Your task to perform on an android device: Search for razer blade on amazon.com, select the first entry, and add it to the cart. Image 0: 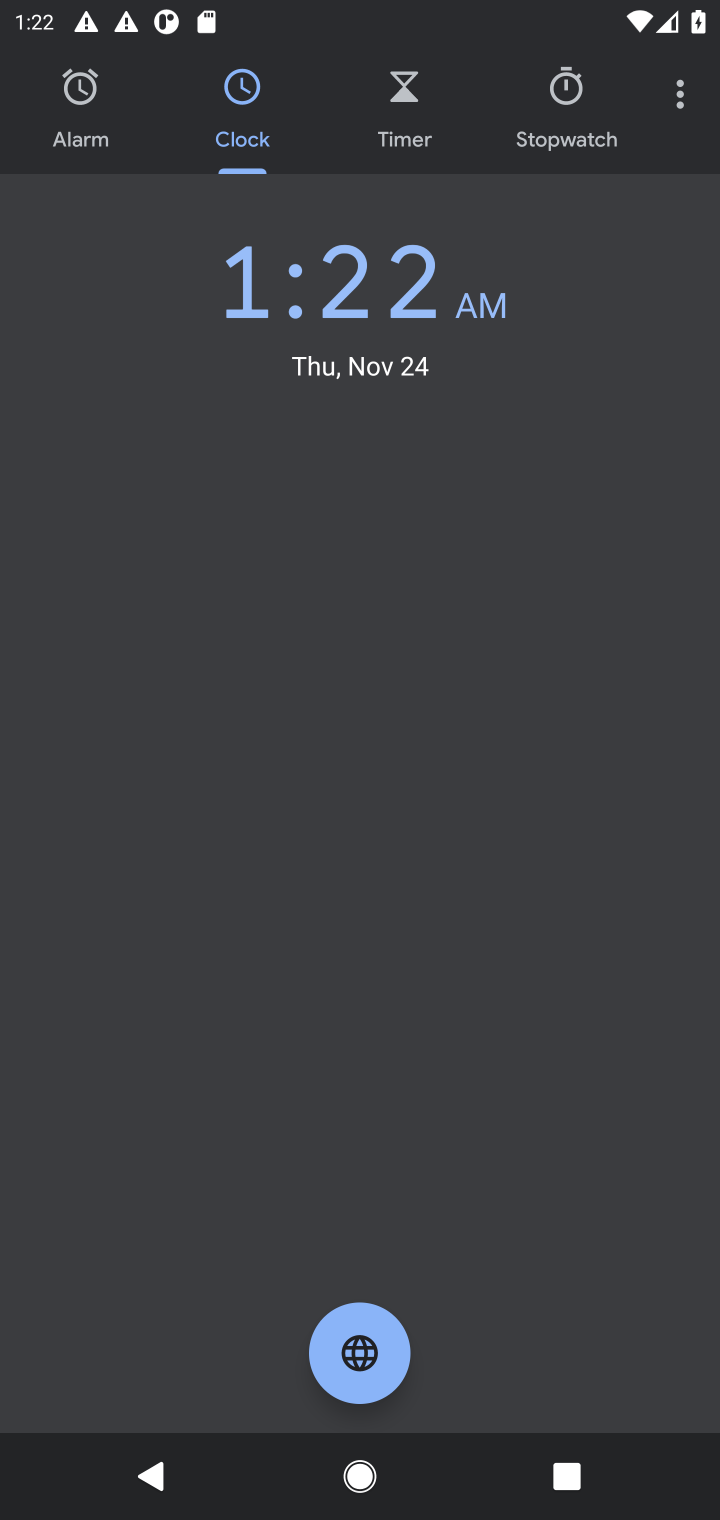
Step 0: press home button
Your task to perform on an android device: Search for razer blade on amazon.com, select the first entry, and add it to the cart. Image 1: 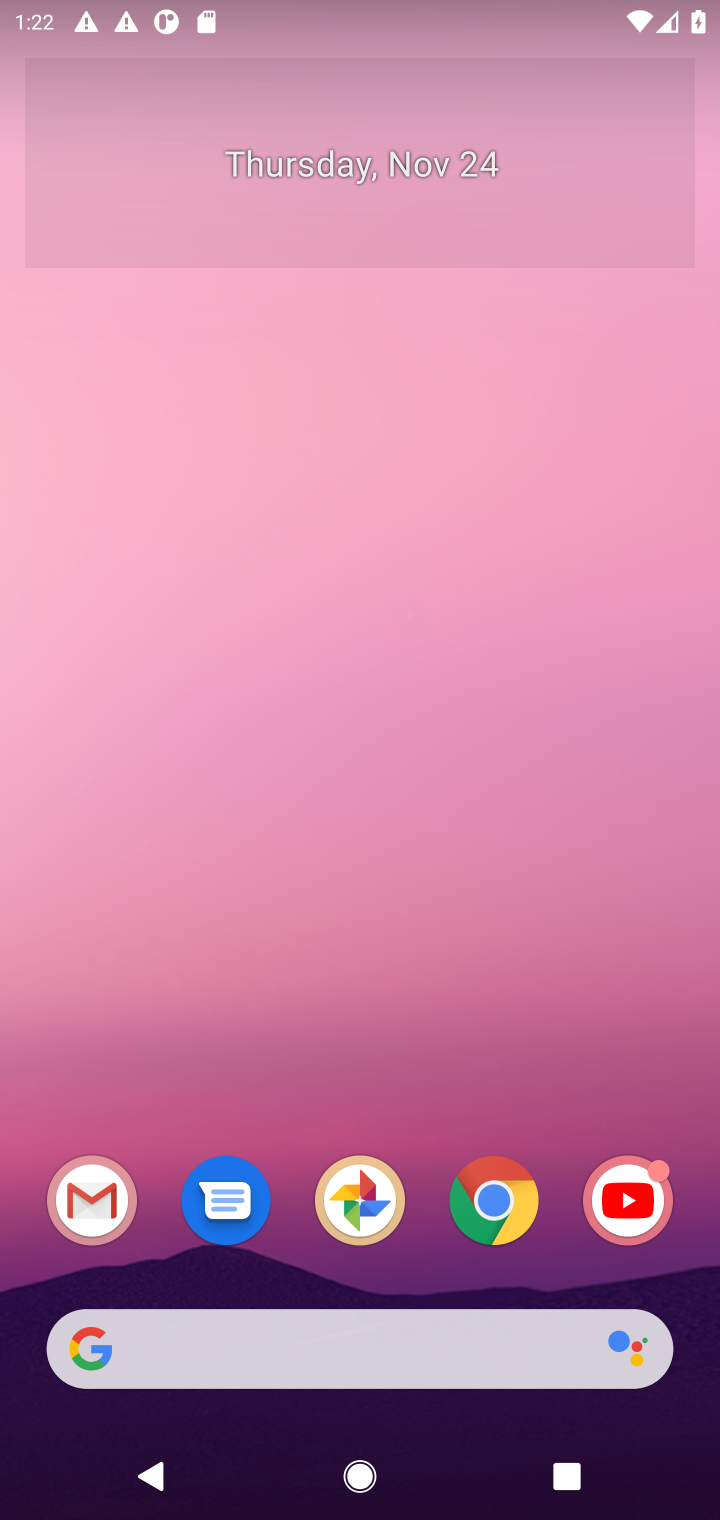
Step 1: click (453, 1326)
Your task to perform on an android device: Search for razer blade on amazon.com, select the first entry, and add it to the cart. Image 2: 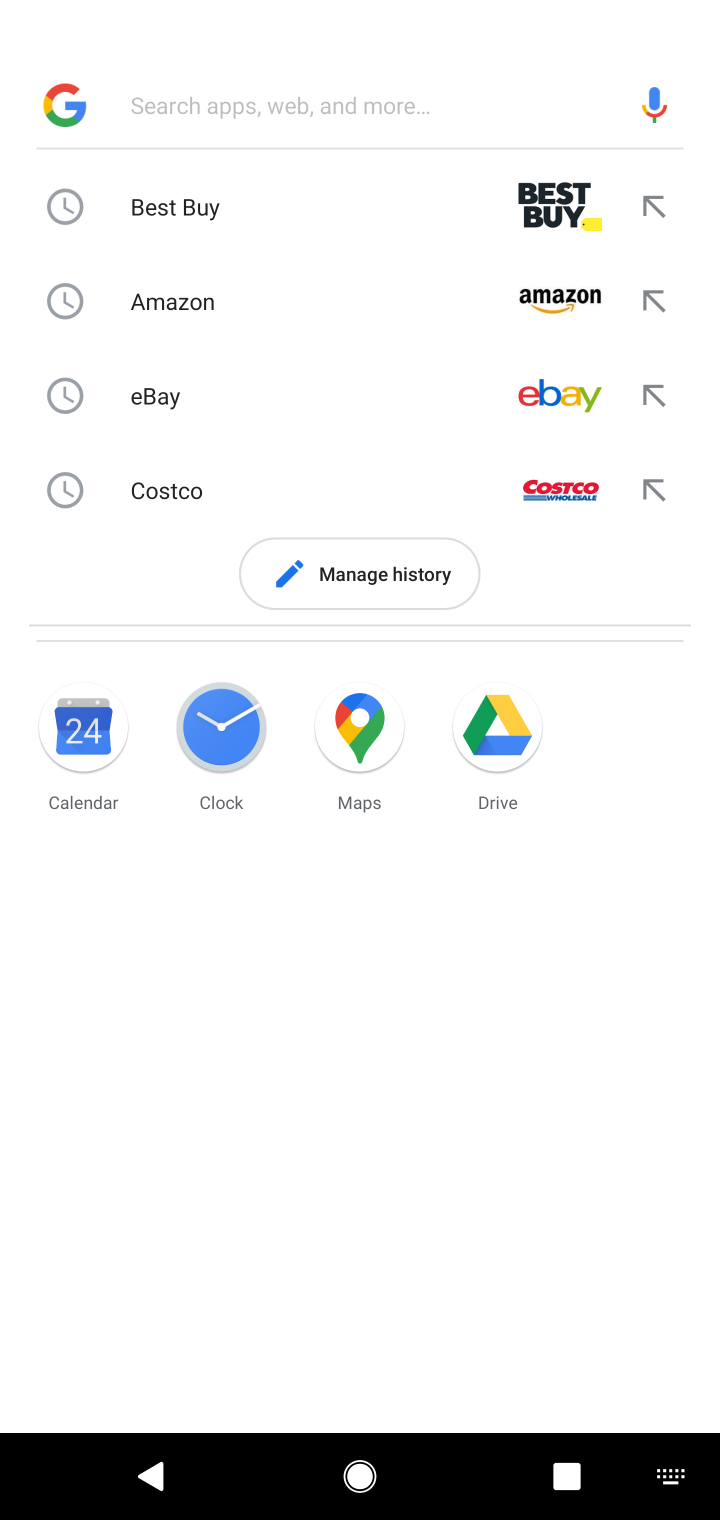
Step 2: click (385, 294)
Your task to perform on an android device: Search for razer blade on amazon.com, select the first entry, and add it to the cart. Image 3: 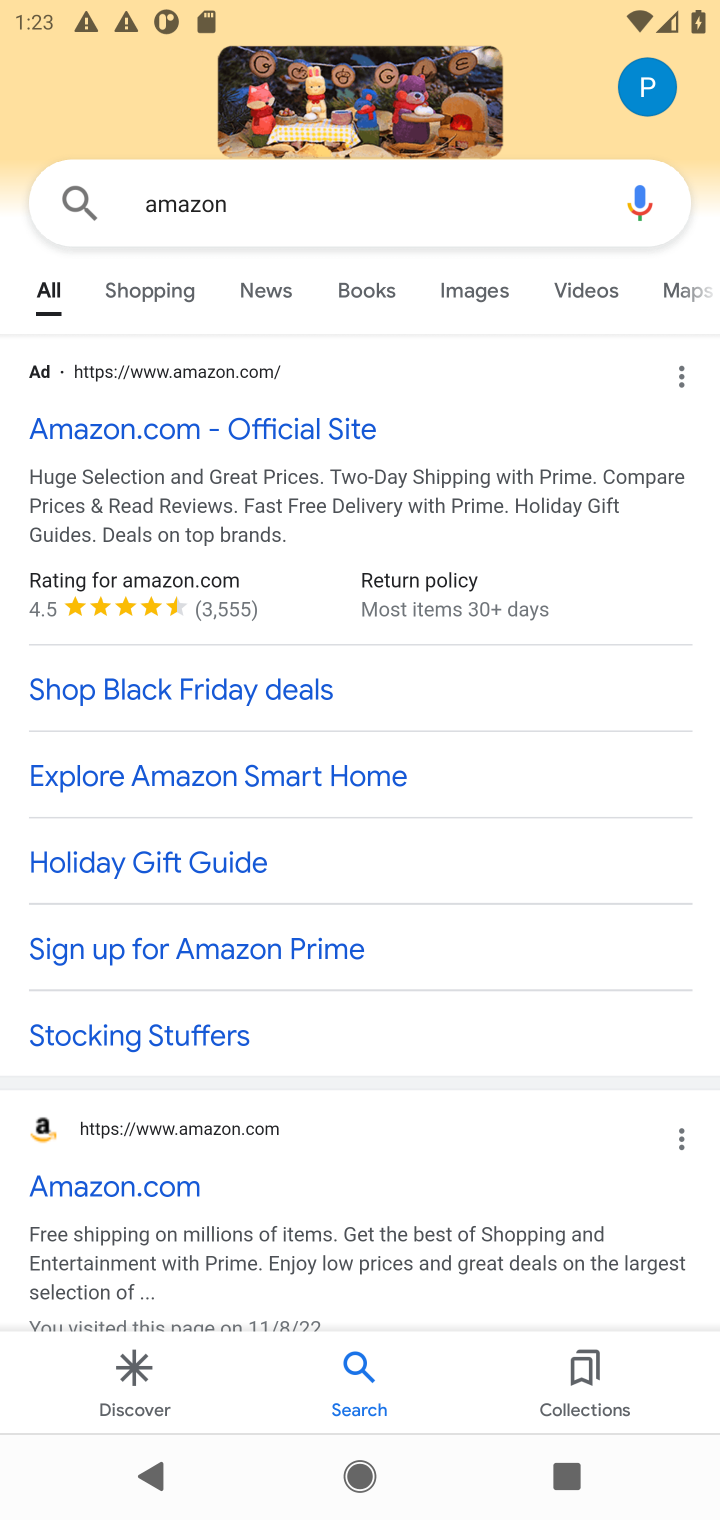
Step 3: click (348, 412)
Your task to perform on an android device: Search for razer blade on amazon.com, select the first entry, and add it to the cart. Image 4: 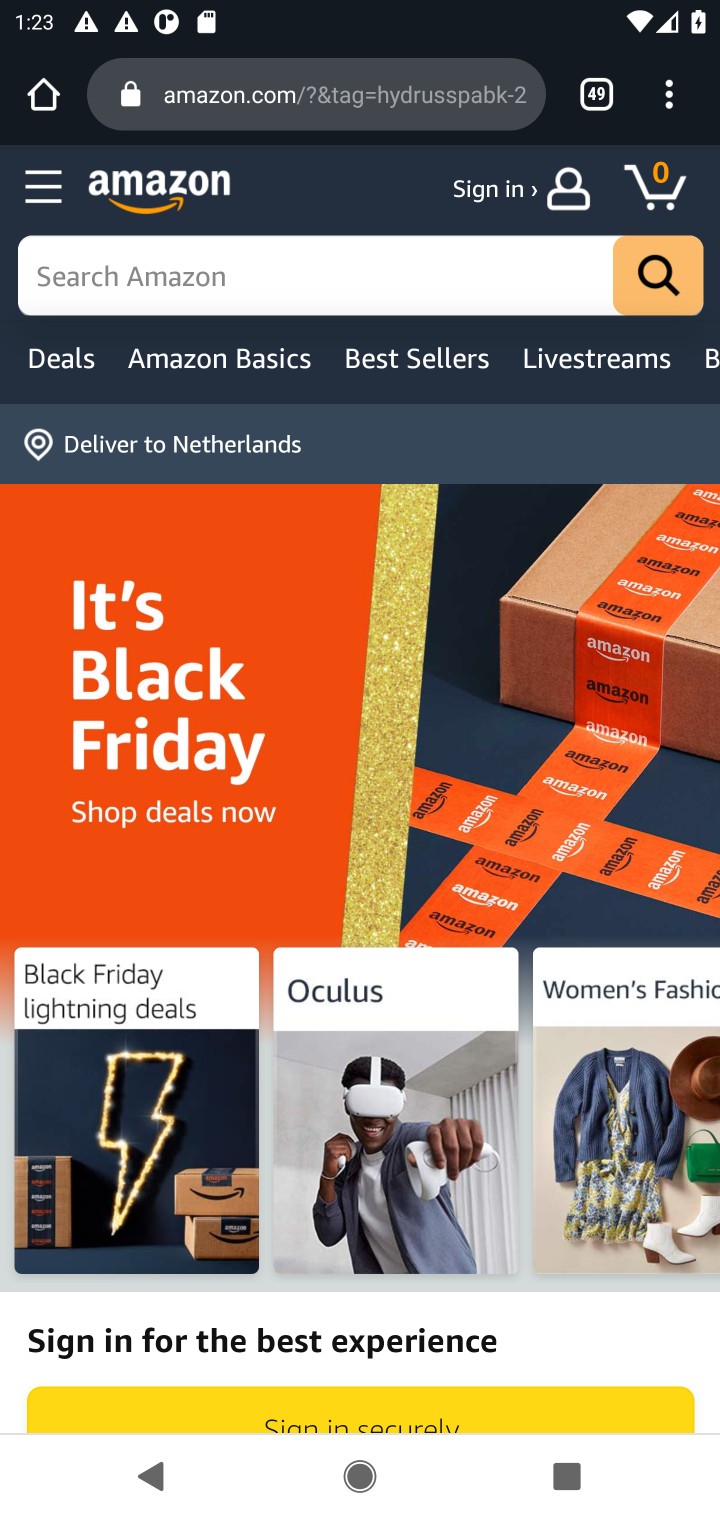
Step 4: click (377, 296)
Your task to perform on an android device: Search for razer blade on amazon.com, select the first entry, and add it to the cart. Image 5: 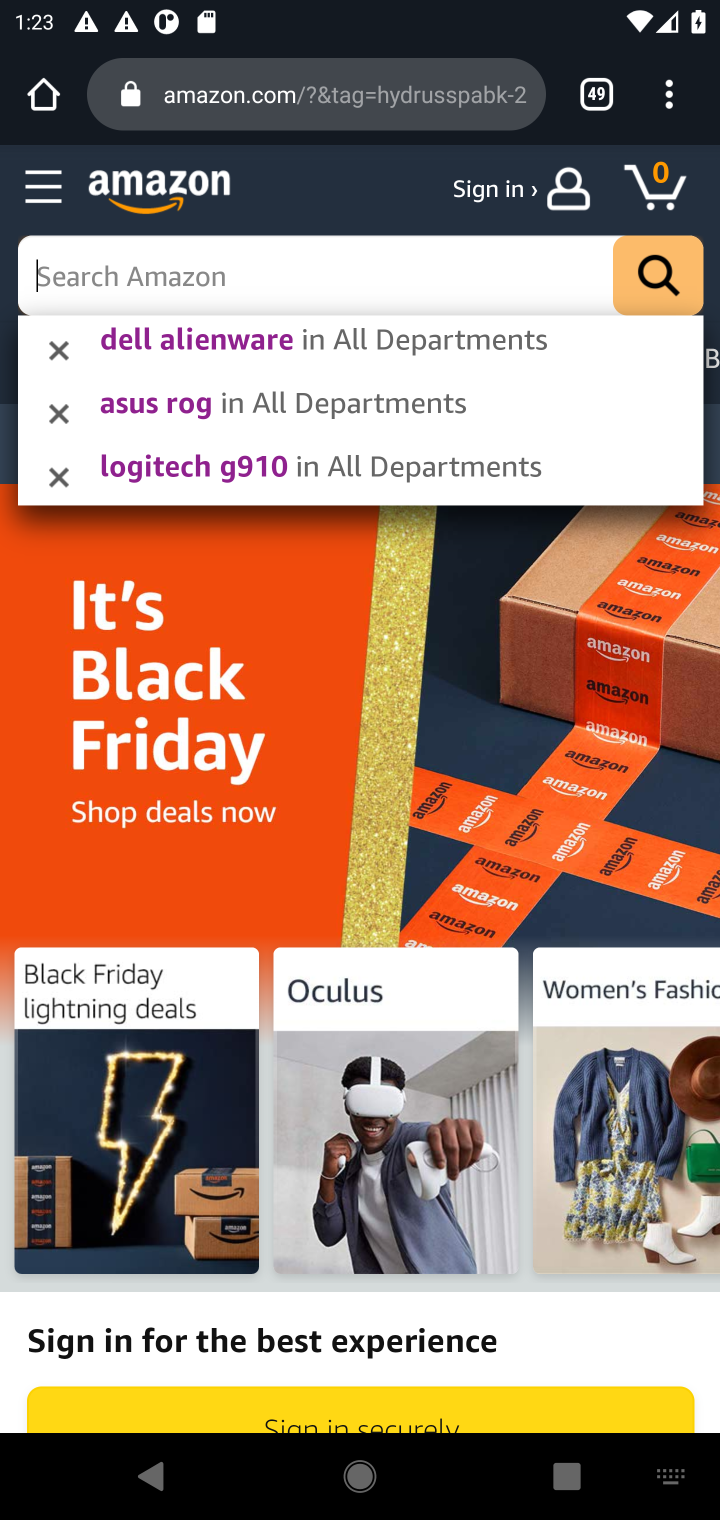
Step 5: type "razer blade"
Your task to perform on an android device: Search for razer blade on amazon.com, select the first entry, and add it to the cart. Image 6: 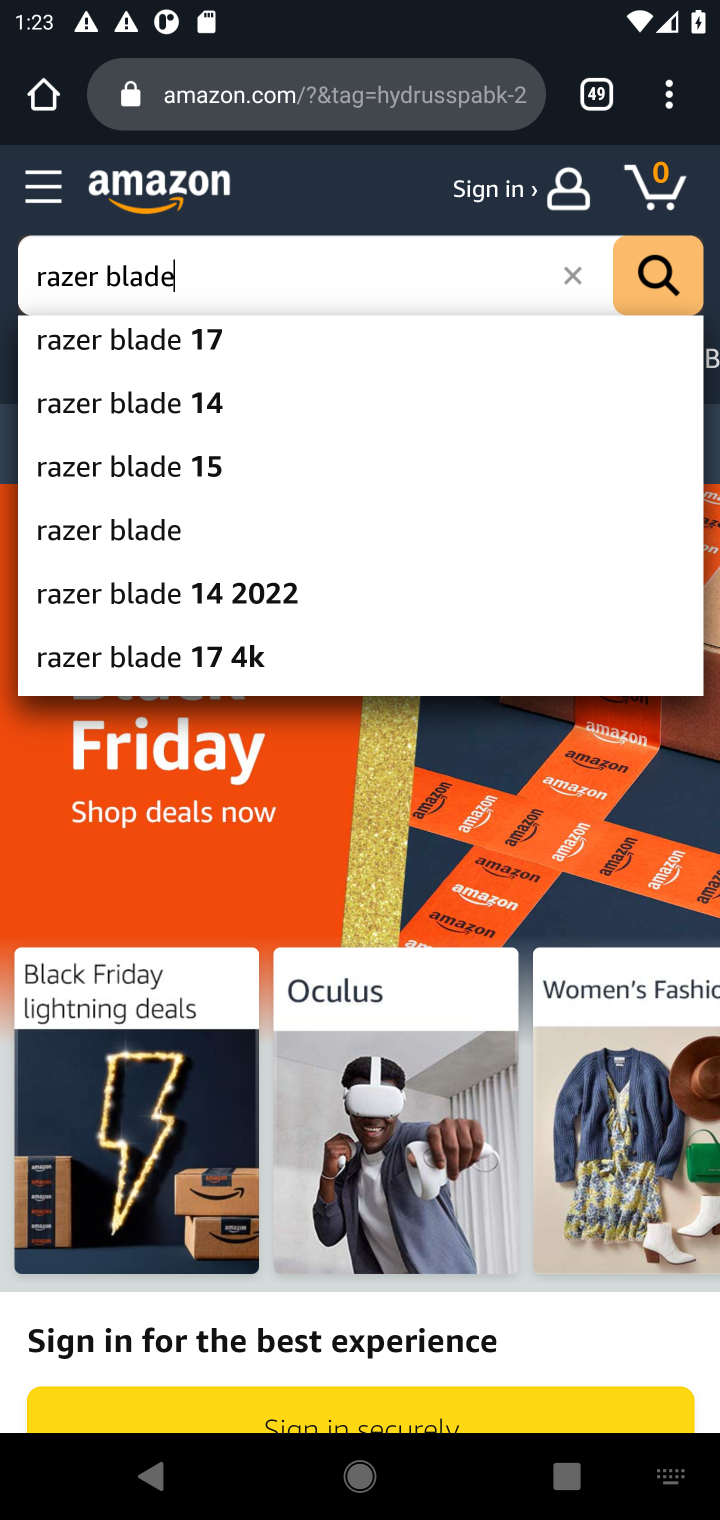
Step 6: click (244, 540)
Your task to perform on an android device: Search for razer blade on amazon.com, select the first entry, and add it to the cart. Image 7: 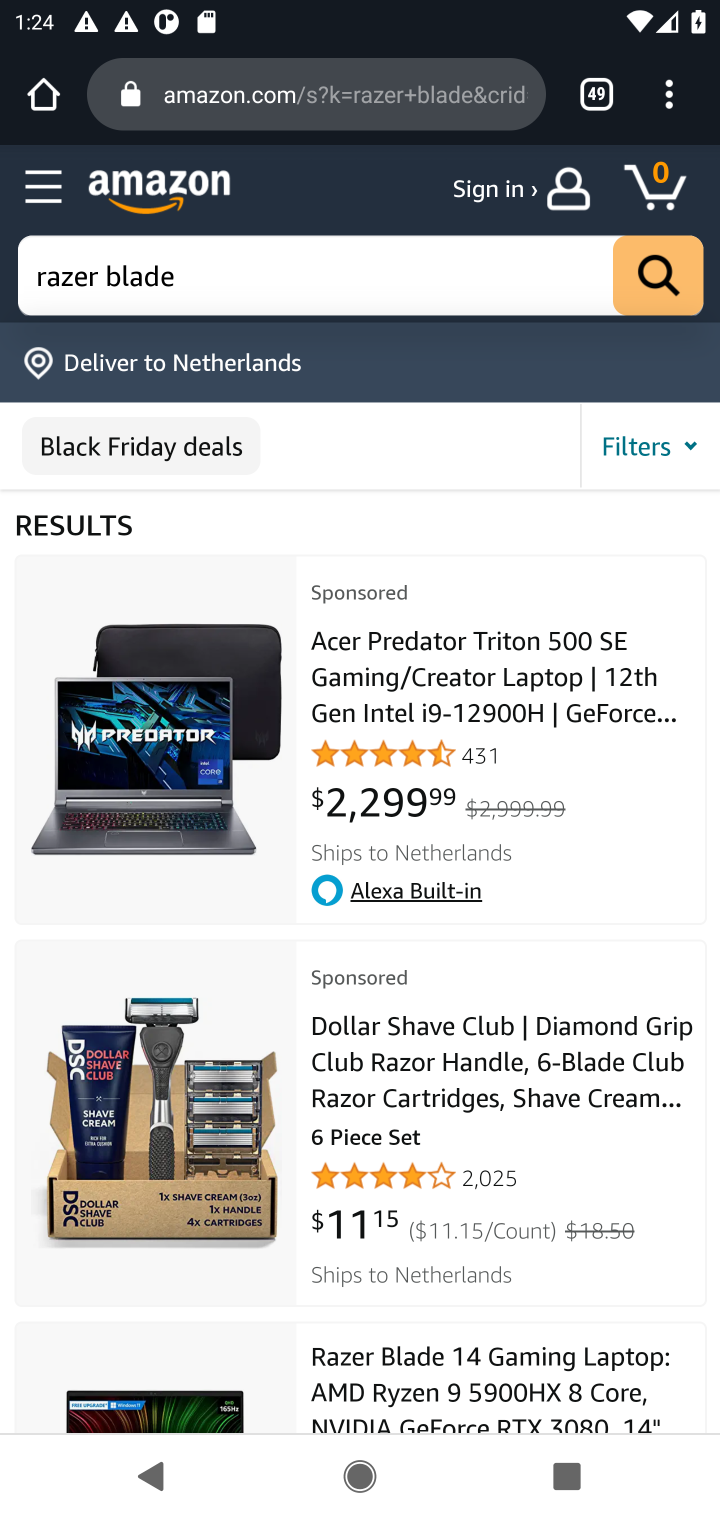
Step 7: click (343, 705)
Your task to perform on an android device: Search for razer blade on amazon.com, select the first entry, and add it to the cart. Image 8: 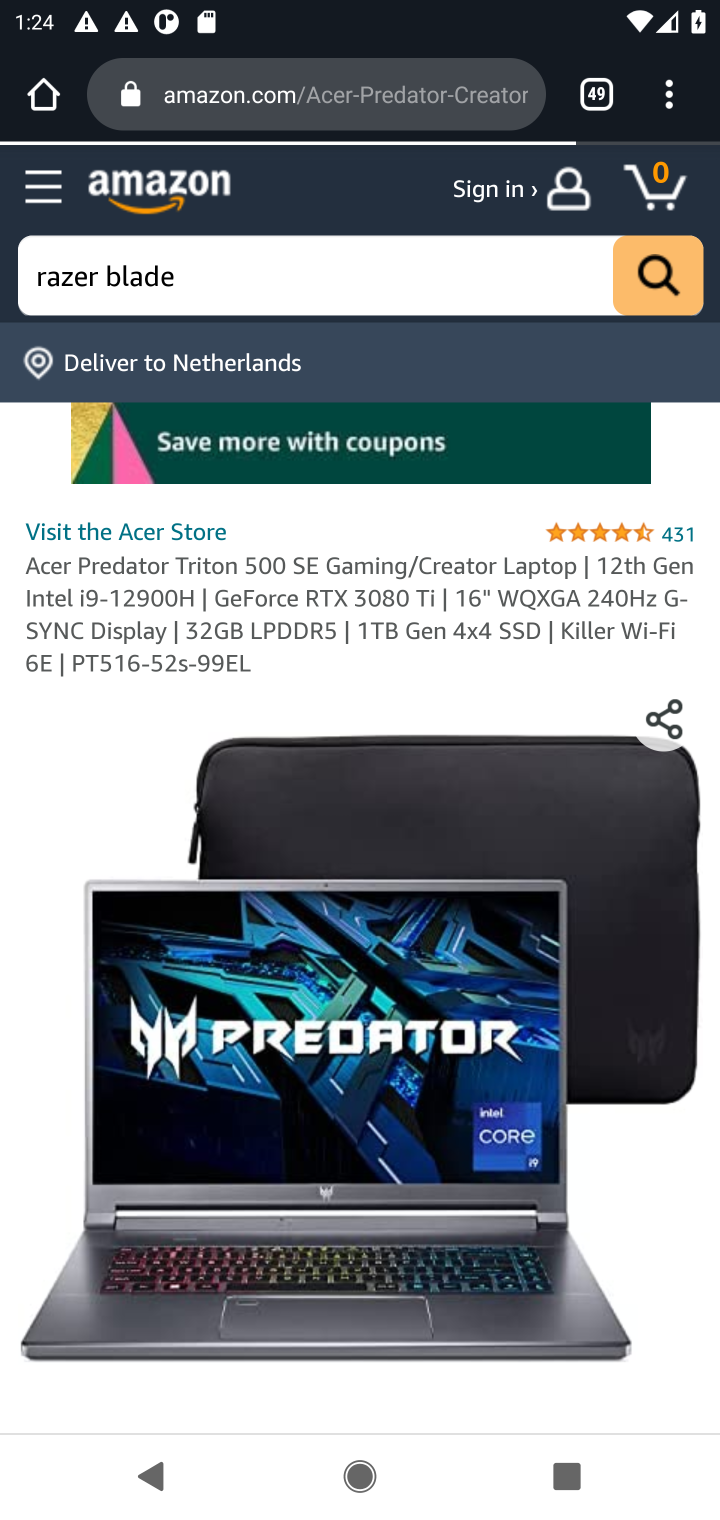
Step 8: task complete